Your task to perform on an android device: Open Android settings Image 0: 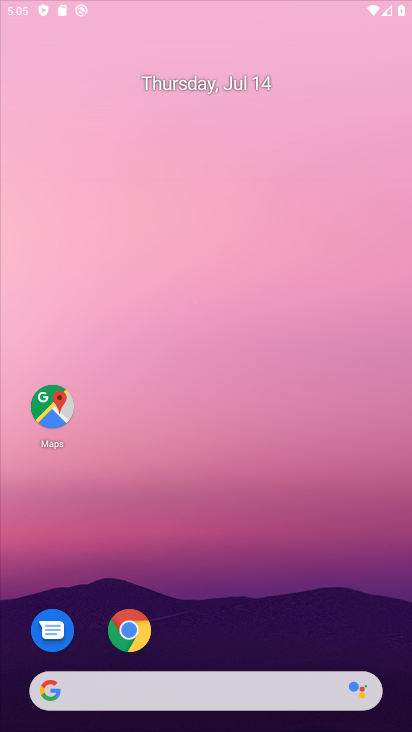
Step 0: press home button
Your task to perform on an android device: Open Android settings Image 1: 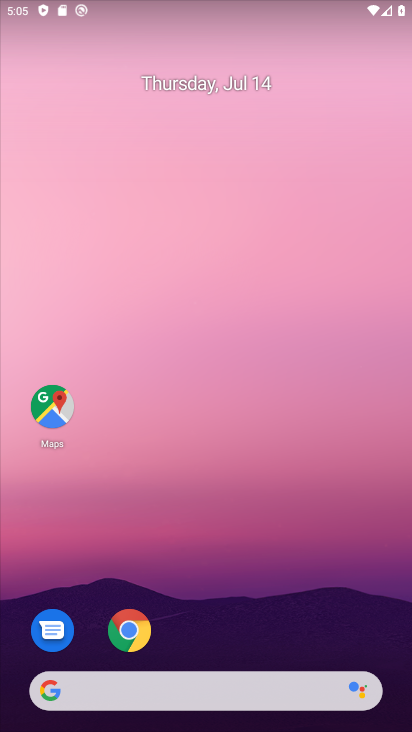
Step 1: drag from (264, 636) to (207, 18)
Your task to perform on an android device: Open Android settings Image 2: 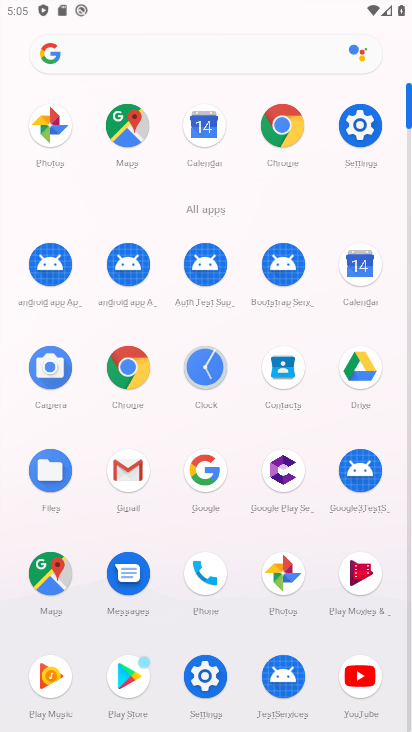
Step 2: click (362, 128)
Your task to perform on an android device: Open Android settings Image 3: 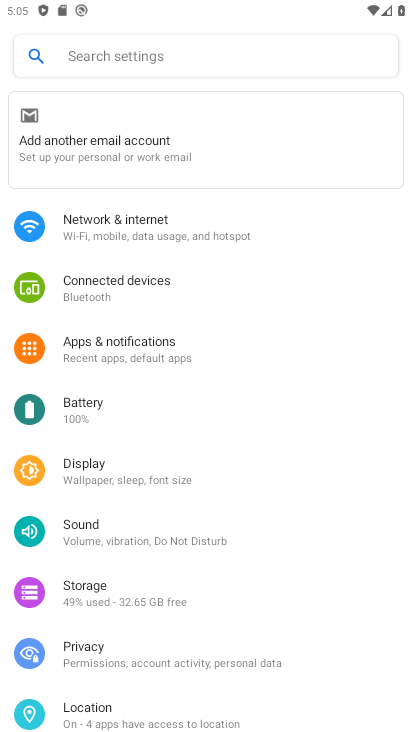
Step 3: task complete